Your task to perform on an android device: all mails in gmail Image 0: 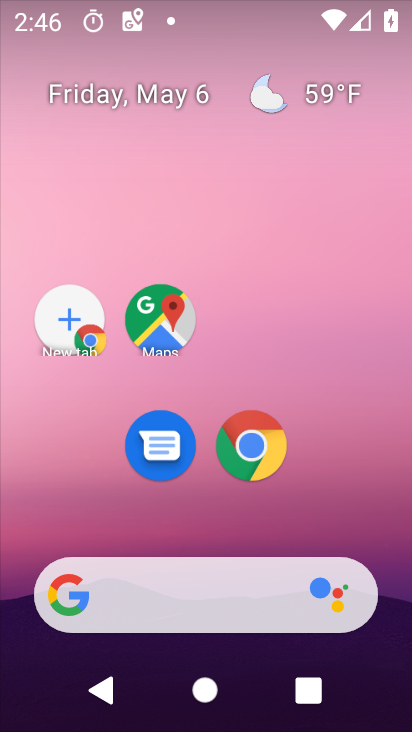
Step 0: drag from (383, 581) to (289, 119)
Your task to perform on an android device: all mails in gmail Image 1: 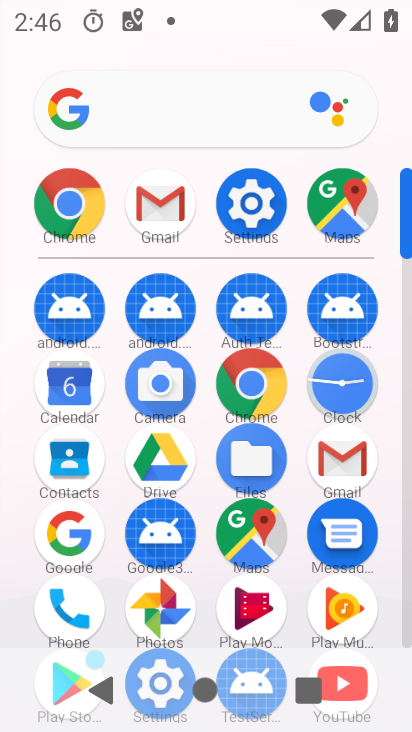
Step 1: click (334, 451)
Your task to perform on an android device: all mails in gmail Image 2: 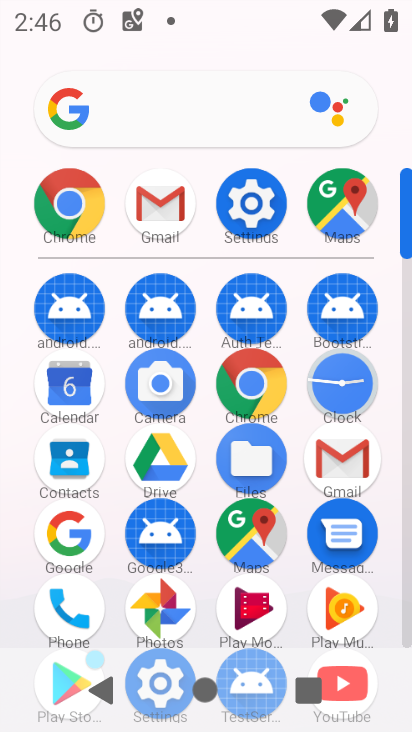
Step 2: click (335, 452)
Your task to perform on an android device: all mails in gmail Image 3: 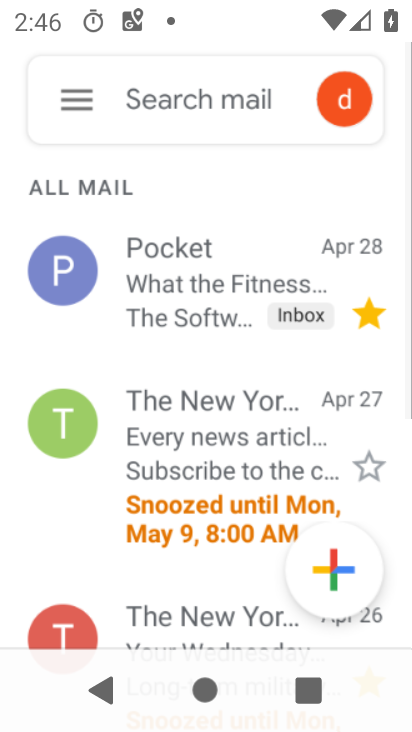
Step 3: click (337, 452)
Your task to perform on an android device: all mails in gmail Image 4: 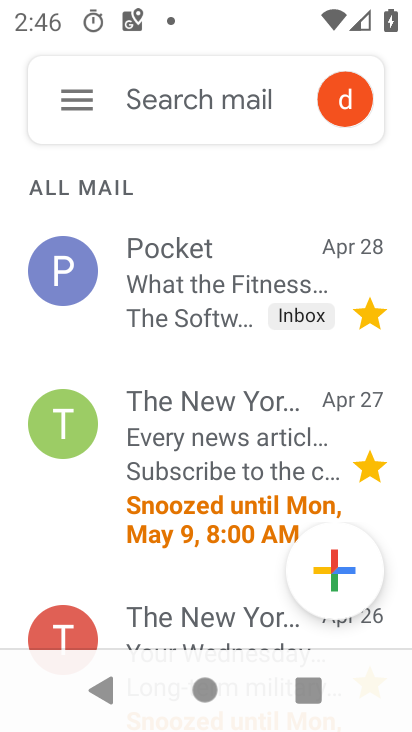
Step 4: task complete